Your task to perform on an android device: turn on bluetooth scan Image 0: 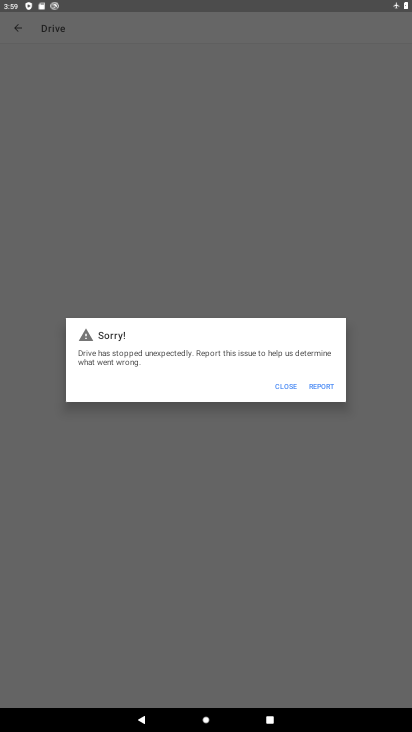
Step 0: press home button
Your task to perform on an android device: turn on bluetooth scan Image 1: 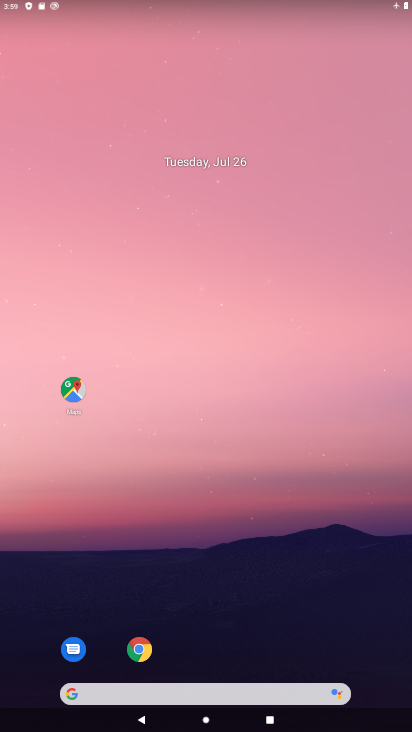
Step 1: drag from (224, 639) to (208, 139)
Your task to perform on an android device: turn on bluetooth scan Image 2: 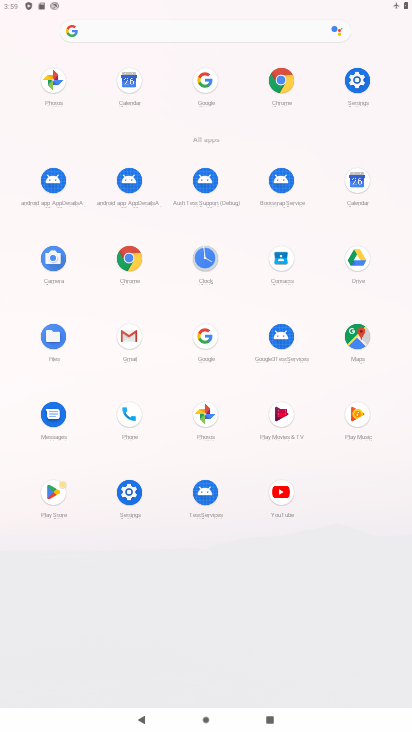
Step 2: click (354, 76)
Your task to perform on an android device: turn on bluetooth scan Image 3: 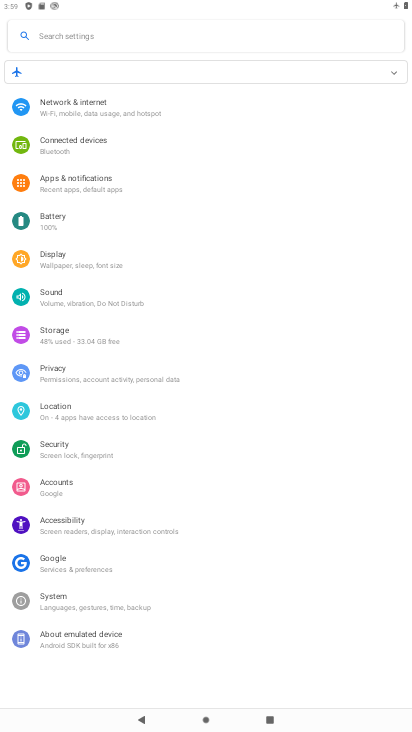
Step 3: click (89, 414)
Your task to perform on an android device: turn on bluetooth scan Image 4: 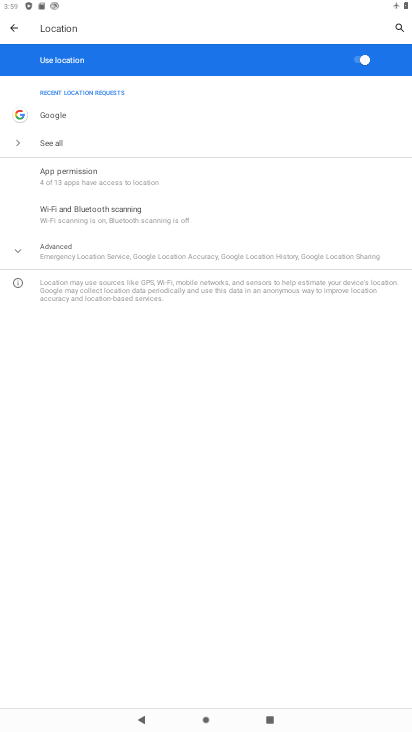
Step 4: click (118, 228)
Your task to perform on an android device: turn on bluetooth scan Image 5: 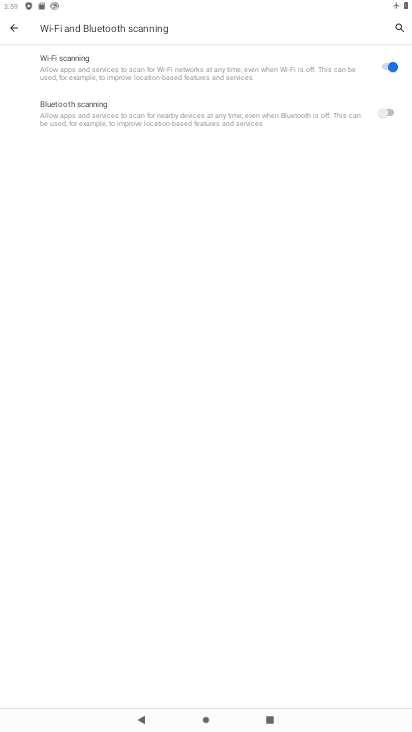
Step 5: click (391, 117)
Your task to perform on an android device: turn on bluetooth scan Image 6: 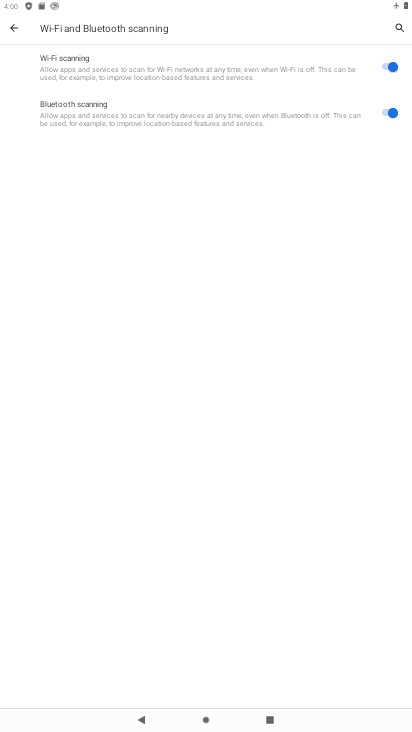
Step 6: task complete